Your task to perform on an android device: Open calendar and show me the fourth week of next month Image 0: 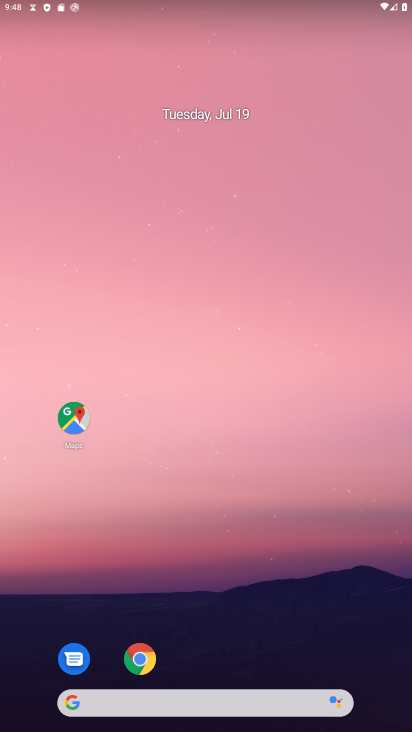
Step 0: drag from (311, 652) to (315, 38)
Your task to perform on an android device: Open calendar and show me the fourth week of next month Image 1: 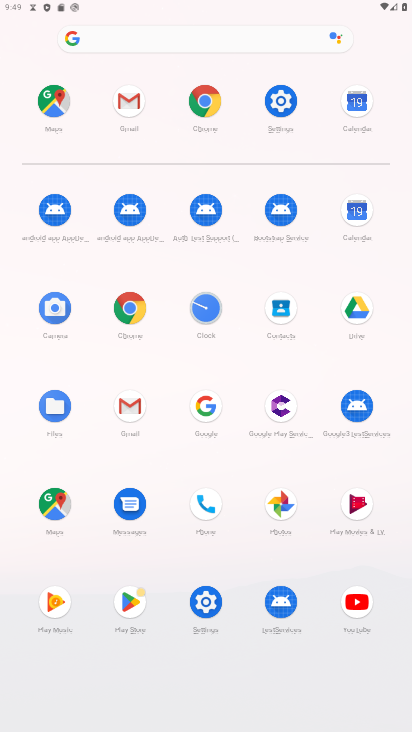
Step 1: click (364, 206)
Your task to perform on an android device: Open calendar and show me the fourth week of next month Image 2: 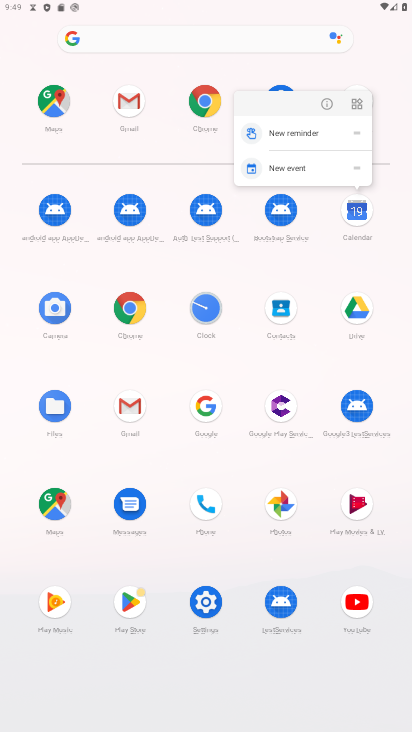
Step 2: click (329, 101)
Your task to perform on an android device: Open calendar and show me the fourth week of next month Image 3: 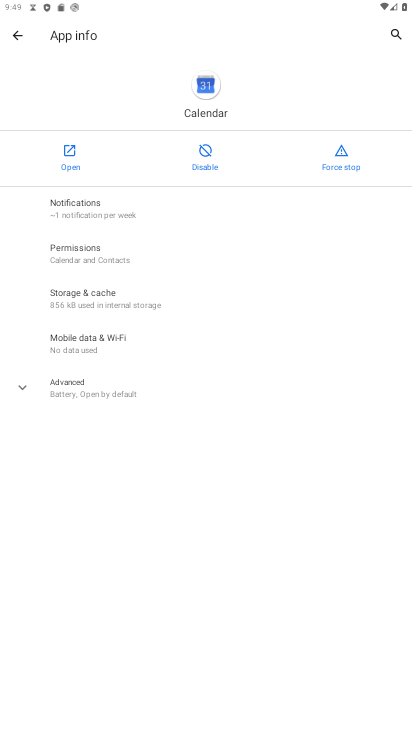
Step 3: click (70, 159)
Your task to perform on an android device: Open calendar and show me the fourth week of next month Image 4: 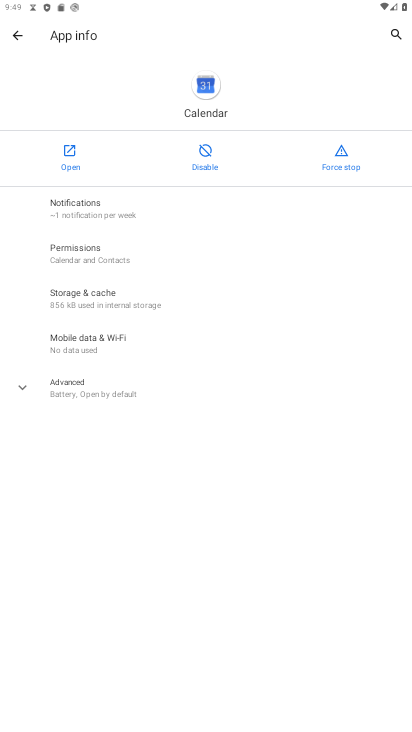
Step 4: click (78, 159)
Your task to perform on an android device: Open calendar and show me the fourth week of next month Image 5: 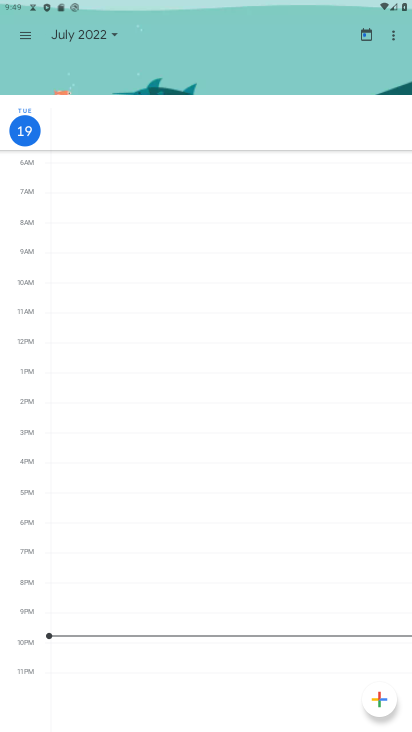
Step 5: drag from (329, 447) to (356, 0)
Your task to perform on an android device: Open calendar and show me the fourth week of next month Image 6: 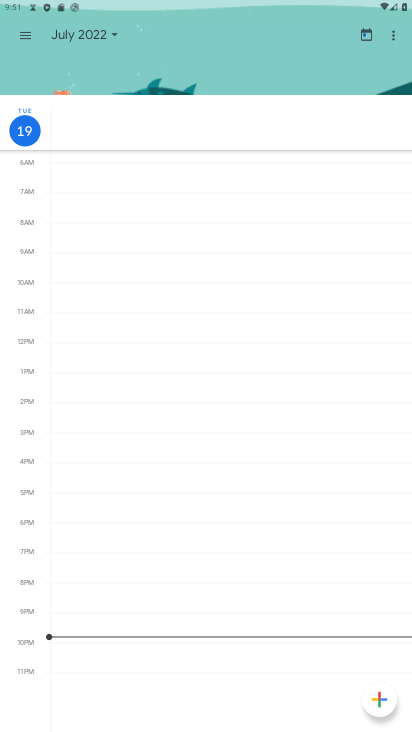
Step 6: drag from (218, 579) to (180, 310)
Your task to perform on an android device: Open calendar and show me the fourth week of next month Image 7: 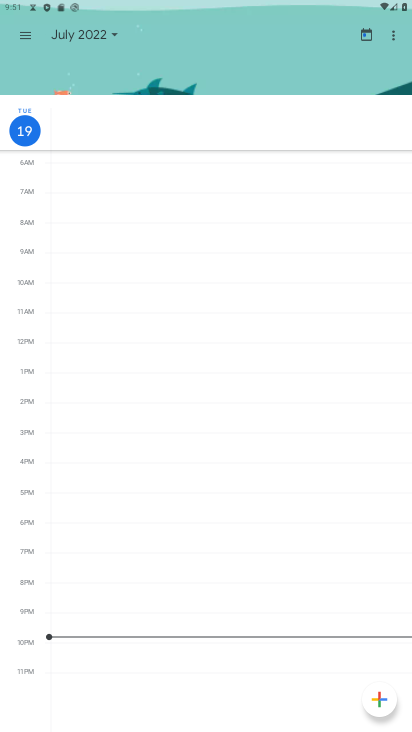
Step 7: click (132, 38)
Your task to perform on an android device: Open calendar and show me the fourth week of next month Image 8: 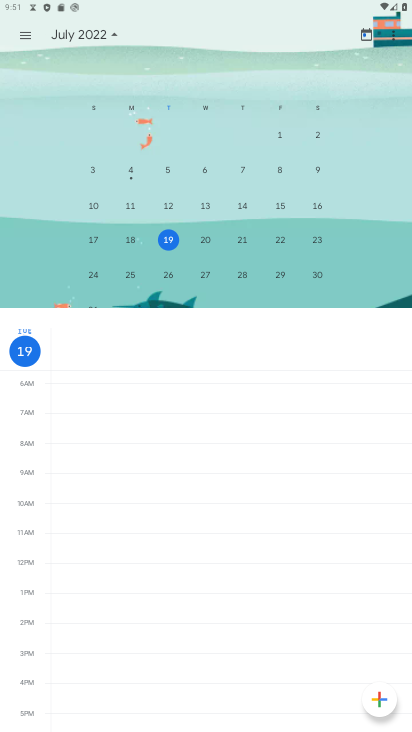
Step 8: task complete